Your task to perform on an android device: Toggle the flashlight Image 0: 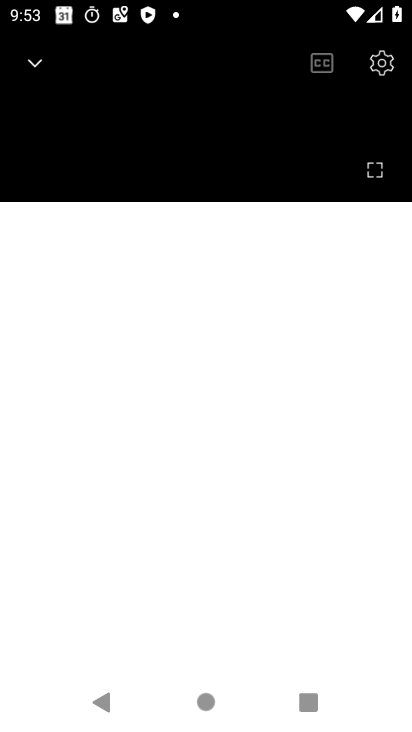
Step 0: drag from (354, 37) to (13, 721)
Your task to perform on an android device: Toggle the flashlight Image 1: 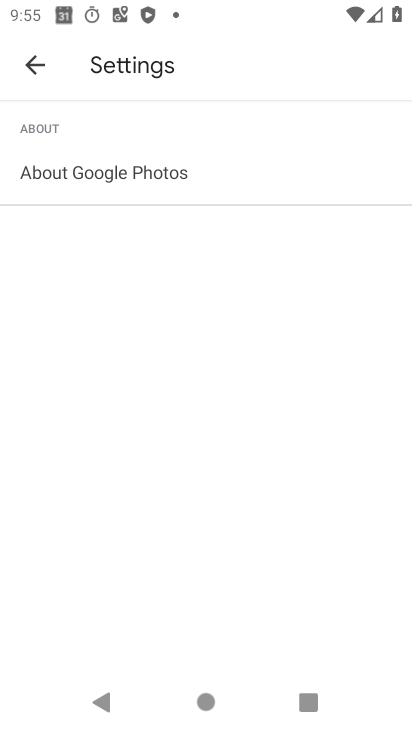
Step 1: press home button
Your task to perform on an android device: Toggle the flashlight Image 2: 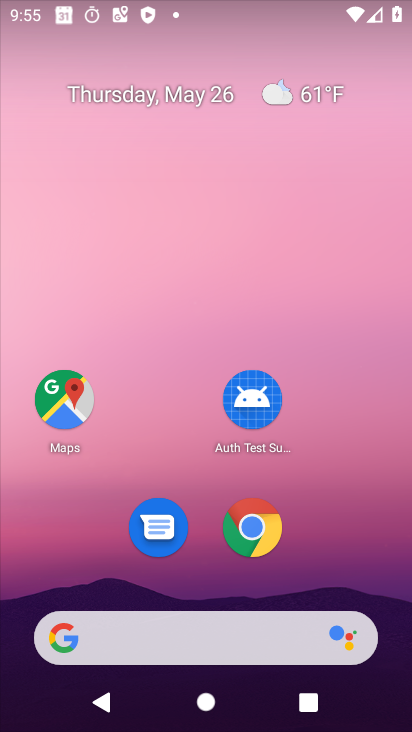
Step 2: drag from (363, 622) to (318, 90)
Your task to perform on an android device: Toggle the flashlight Image 3: 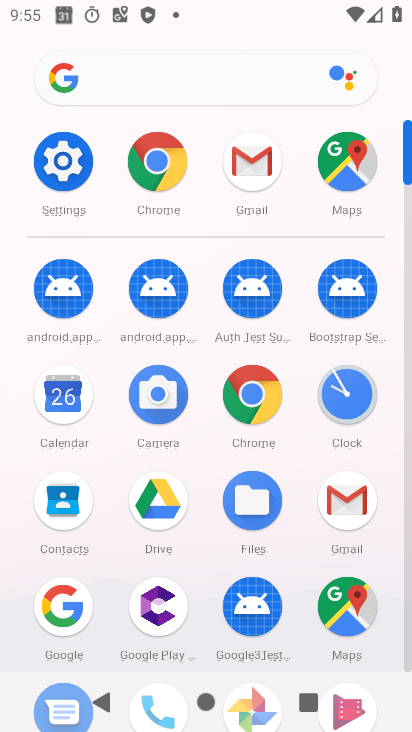
Step 3: click (39, 158)
Your task to perform on an android device: Toggle the flashlight Image 4: 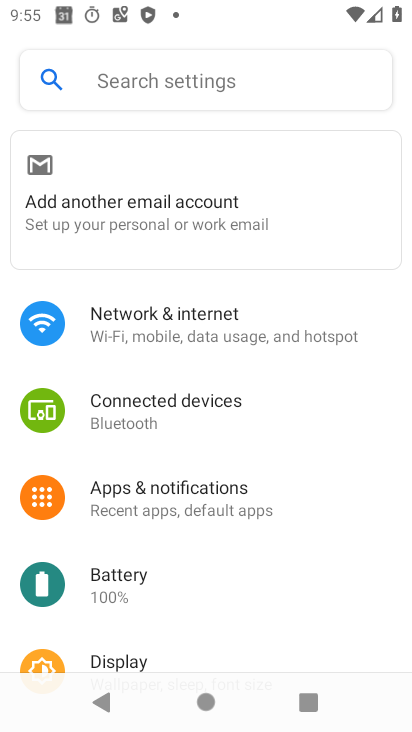
Step 4: task complete